Your task to perform on an android device: Open privacy settings Image 0: 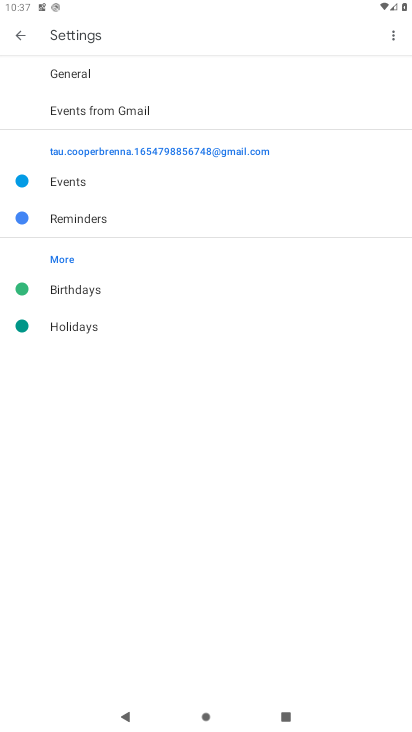
Step 0: press home button
Your task to perform on an android device: Open privacy settings Image 1: 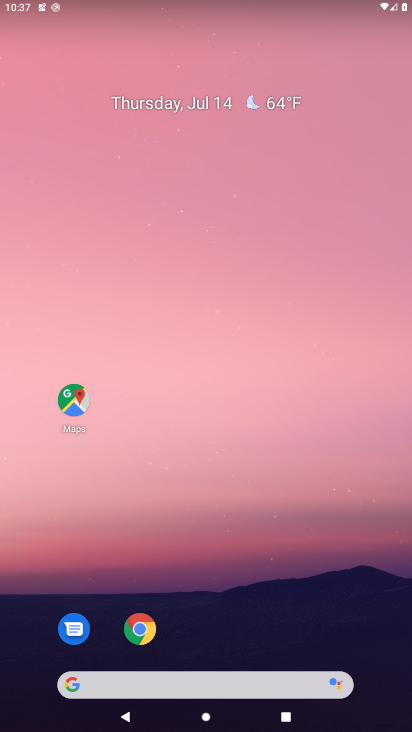
Step 1: drag from (151, 604) to (180, 286)
Your task to perform on an android device: Open privacy settings Image 2: 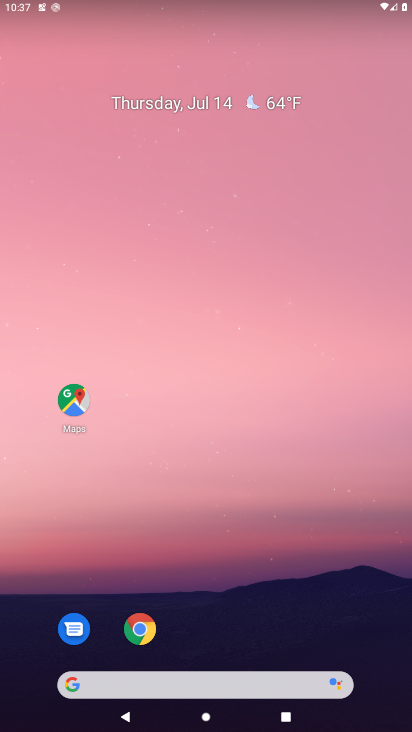
Step 2: drag from (231, 393) to (231, 311)
Your task to perform on an android device: Open privacy settings Image 3: 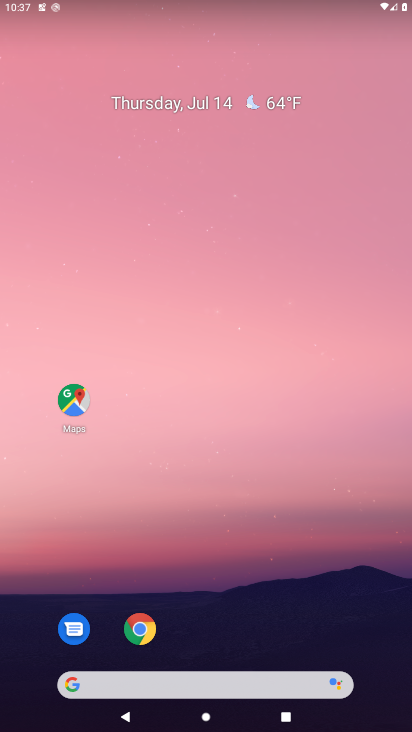
Step 3: drag from (155, 658) to (179, 279)
Your task to perform on an android device: Open privacy settings Image 4: 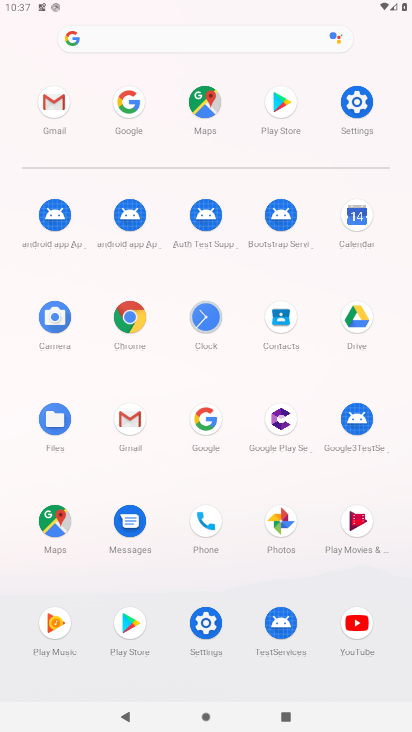
Step 4: click (355, 104)
Your task to perform on an android device: Open privacy settings Image 5: 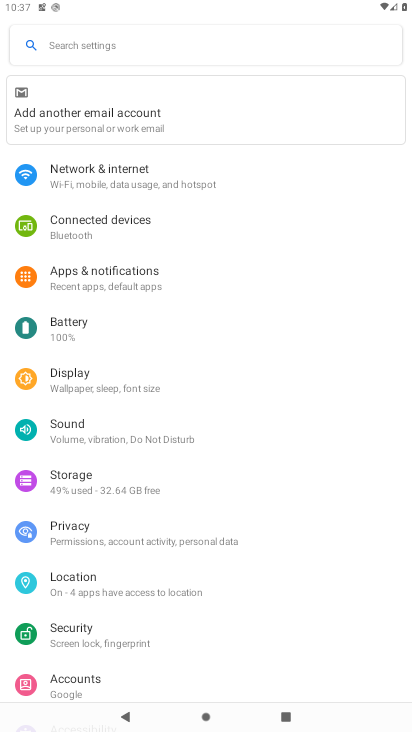
Step 5: click (72, 530)
Your task to perform on an android device: Open privacy settings Image 6: 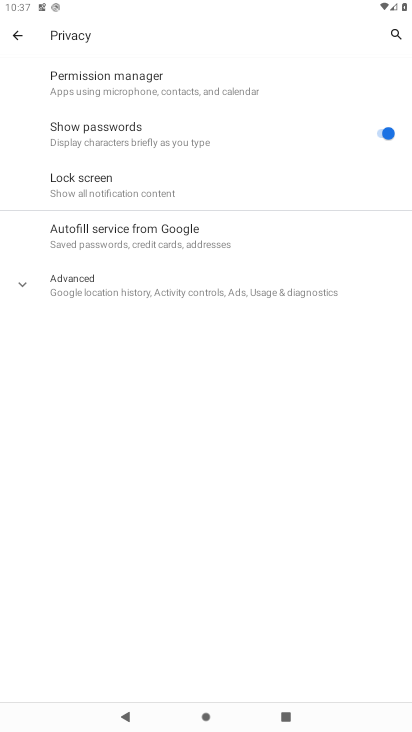
Step 6: click (72, 279)
Your task to perform on an android device: Open privacy settings Image 7: 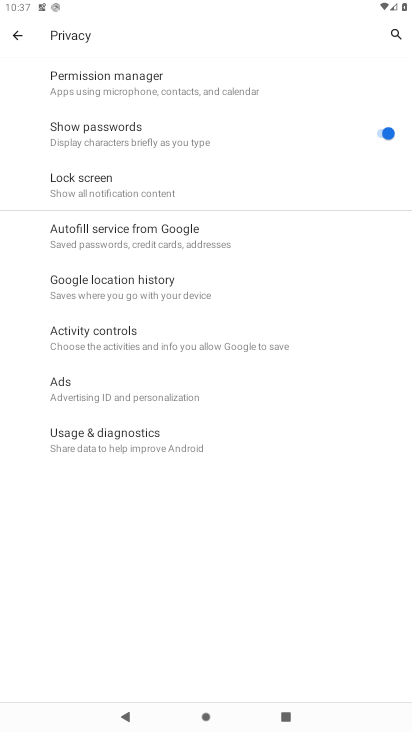
Step 7: task complete